Your task to perform on an android device: Go to Google Image 0: 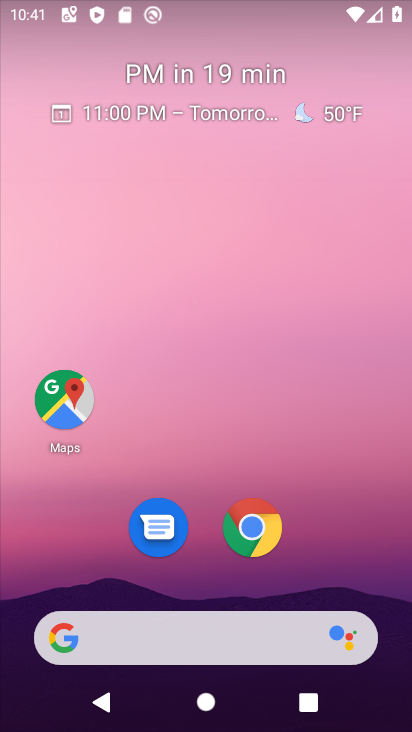
Step 0: press home button
Your task to perform on an android device: Go to Google Image 1: 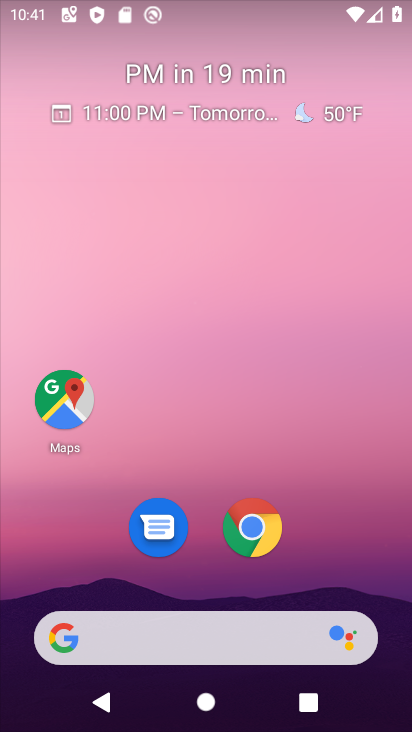
Step 1: drag from (376, 560) to (356, 165)
Your task to perform on an android device: Go to Google Image 2: 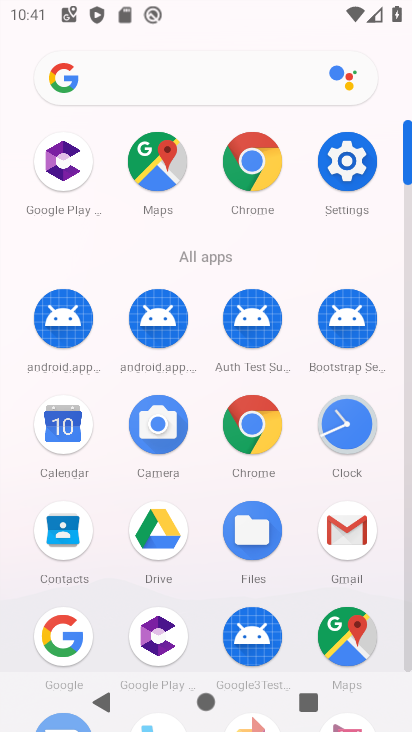
Step 2: click (57, 650)
Your task to perform on an android device: Go to Google Image 3: 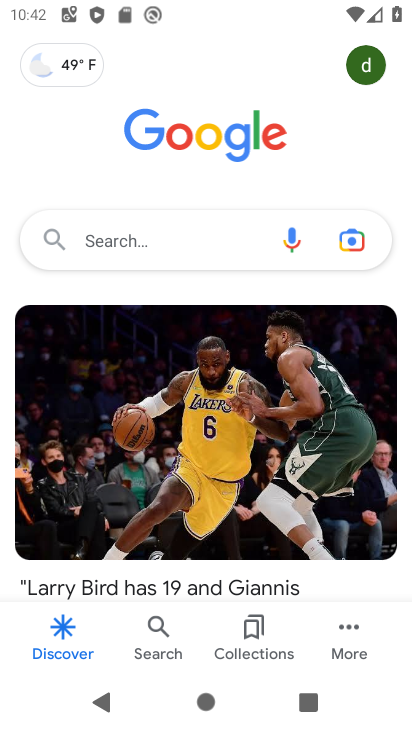
Step 3: task complete